Your task to perform on an android device: delete browsing data in the chrome app Image 0: 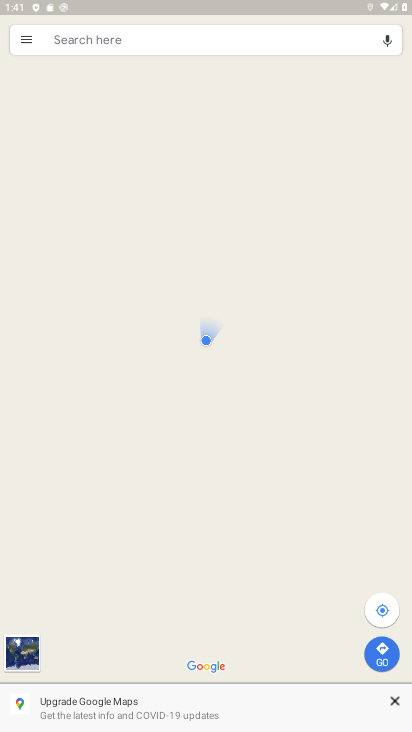
Step 0: press home button
Your task to perform on an android device: delete browsing data in the chrome app Image 1: 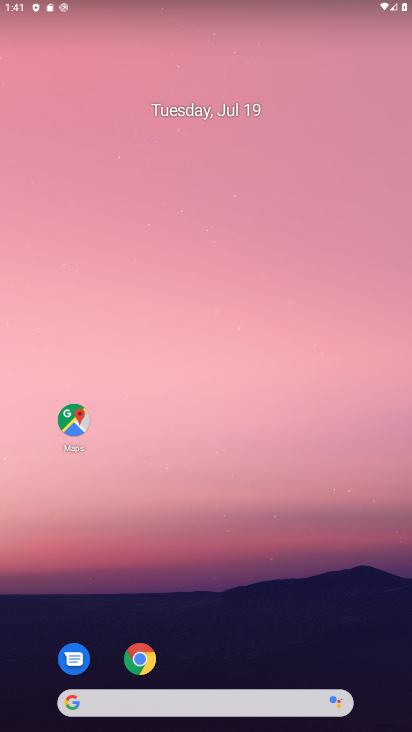
Step 1: click (138, 665)
Your task to perform on an android device: delete browsing data in the chrome app Image 2: 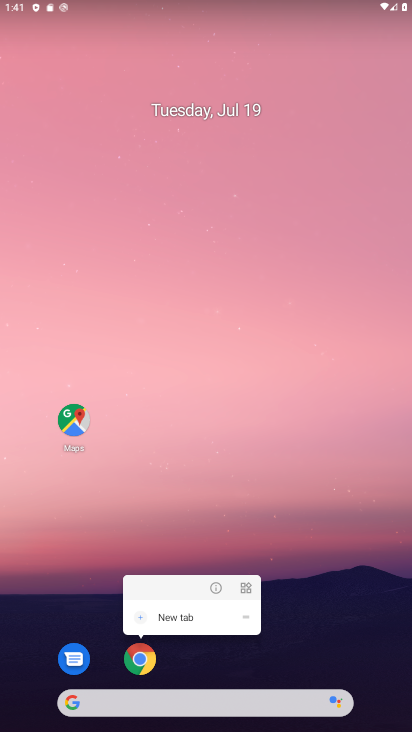
Step 2: click (138, 656)
Your task to perform on an android device: delete browsing data in the chrome app Image 3: 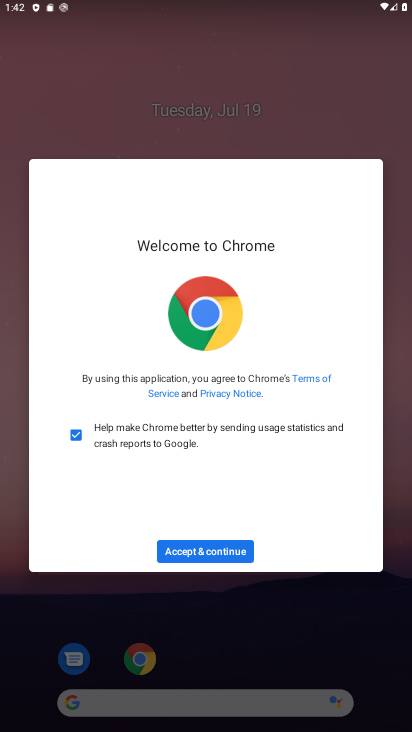
Step 3: click (228, 546)
Your task to perform on an android device: delete browsing data in the chrome app Image 4: 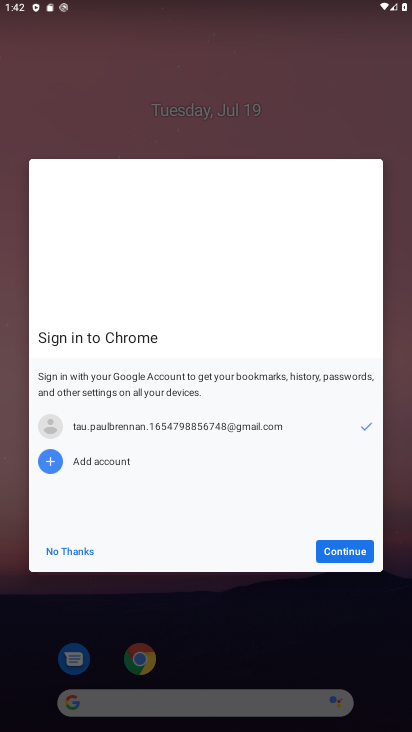
Step 4: click (326, 557)
Your task to perform on an android device: delete browsing data in the chrome app Image 5: 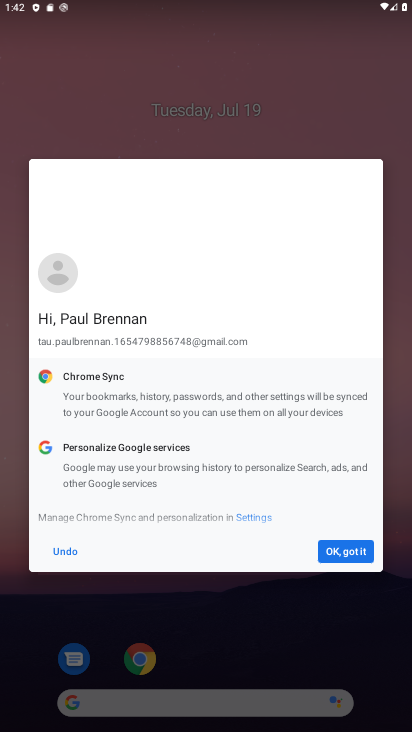
Step 5: click (326, 557)
Your task to perform on an android device: delete browsing data in the chrome app Image 6: 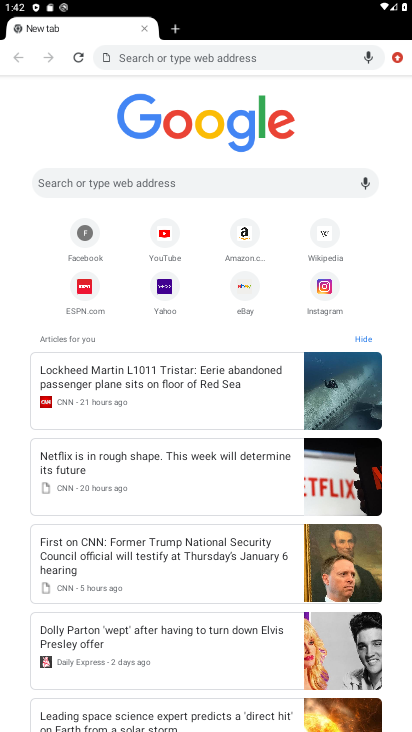
Step 6: click (397, 56)
Your task to perform on an android device: delete browsing data in the chrome app Image 7: 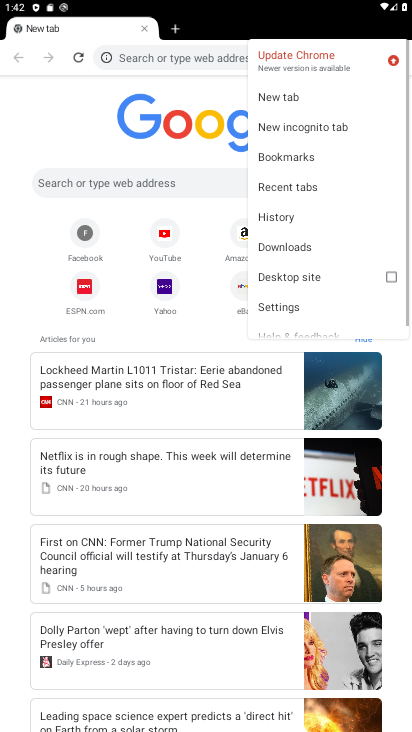
Step 7: click (304, 307)
Your task to perform on an android device: delete browsing data in the chrome app Image 8: 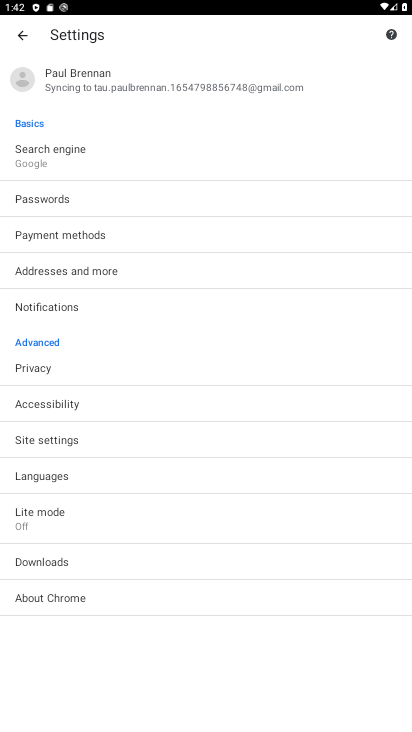
Step 8: click (46, 370)
Your task to perform on an android device: delete browsing data in the chrome app Image 9: 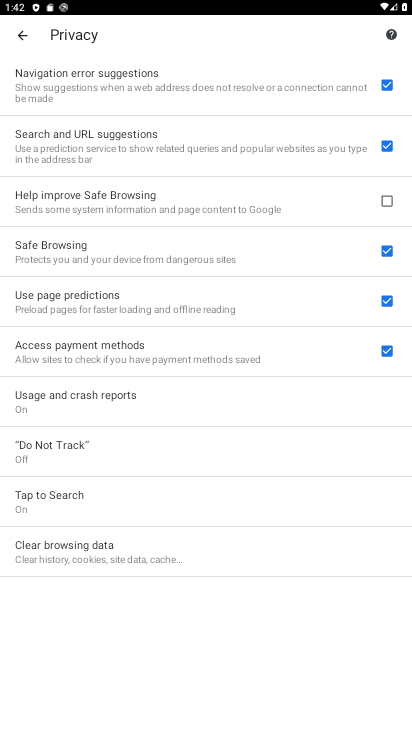
Step 9: click (87, 553)
Your task to perform on an android device: delete browsing data in the chrome app Image 10: 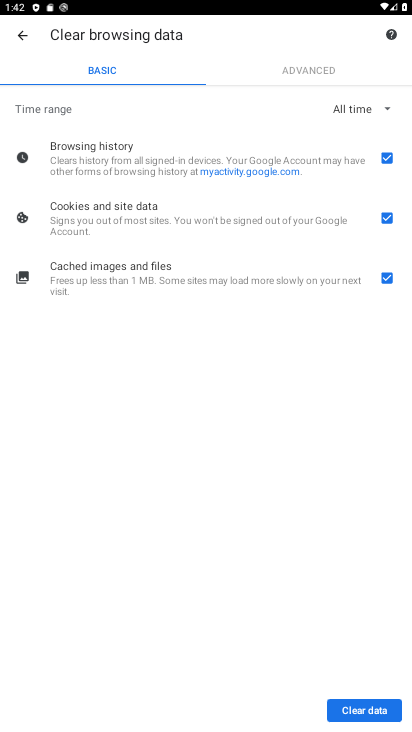
Step 10: click (368, 716)
Your task to perform on an android device: delete browsing data in the chrome app Image 11: 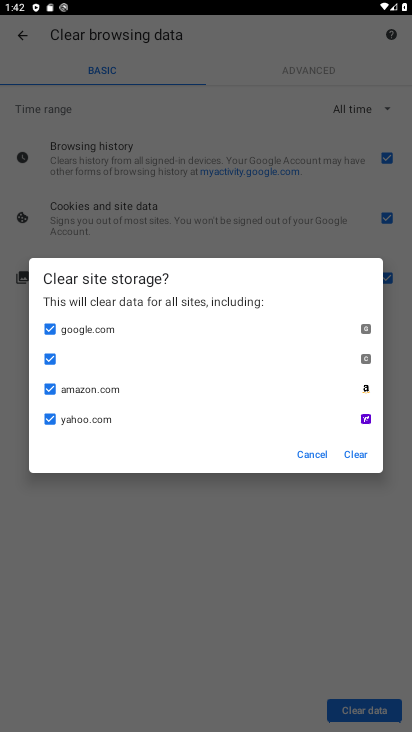
Step 11: click (361, 457)
Your task to perform on an android device: delete browsing data in the chrome app Image 12: 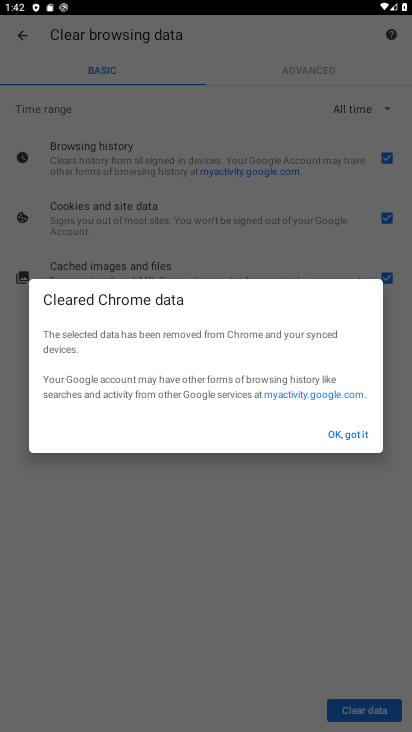
Step 12: click (336, 430)
Your task to perform on an android device: delete browsing data in the chrome app Image 13: 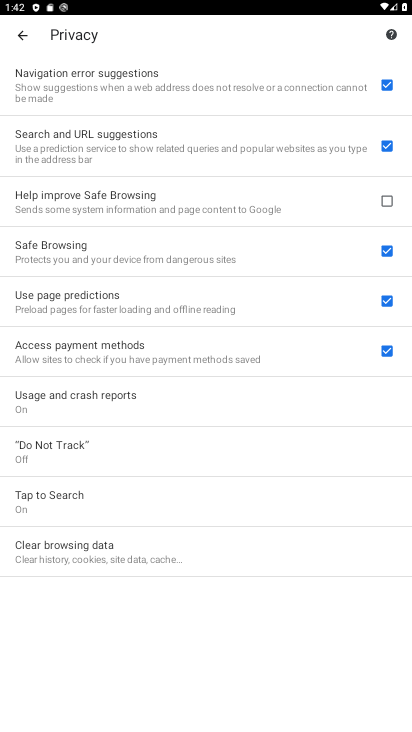
Step 13: task complete